Your task to perform on an android device: Open maps Image 0: 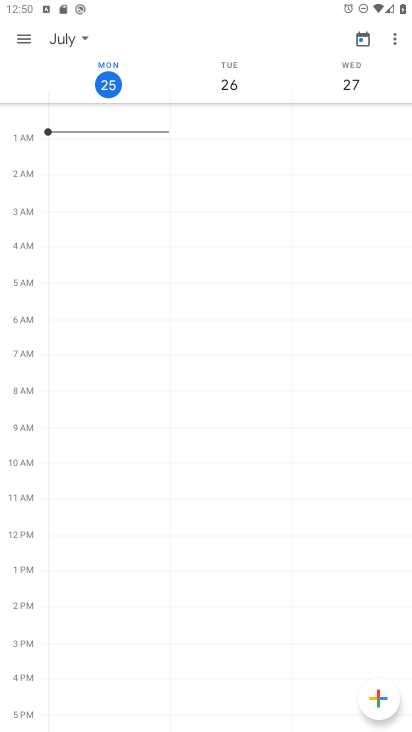
Step 0: press home button
Your task to perform on an android device: Open maps Image 1: 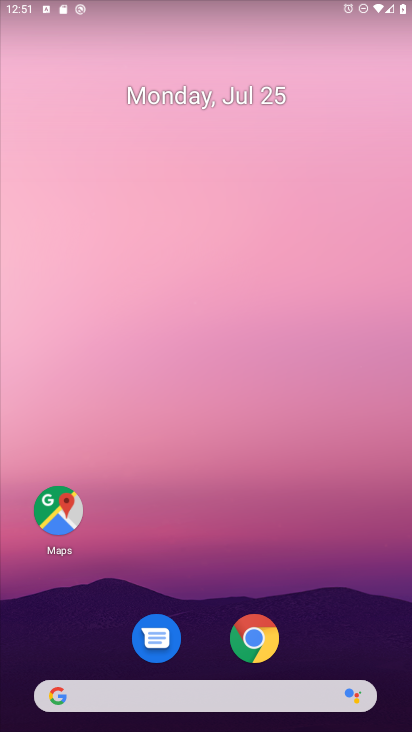
Step 1: click (54, 511)
Your task to perform on an android device: Open maps Image 2: 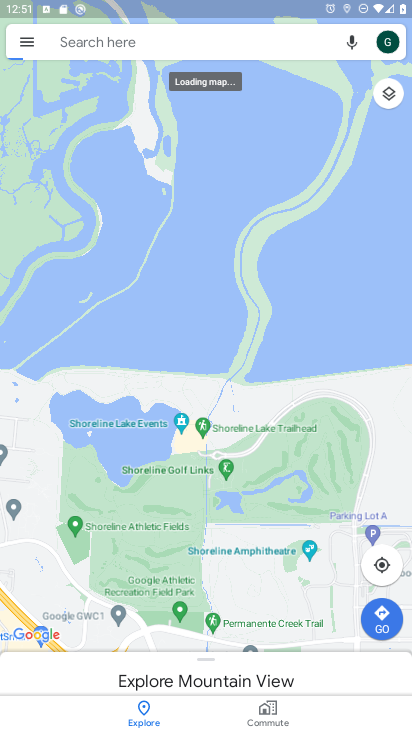
Step 2: task complete